Your task to perform on an android device: Go to Android settings Image 0: 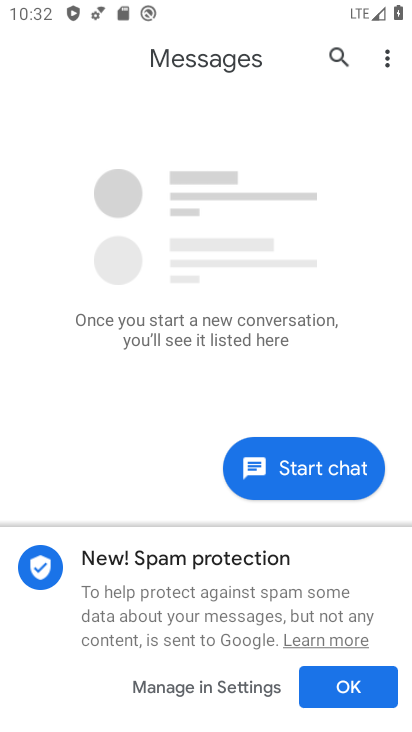
Step 0: press home button
Your task to perform on an android device: Go to Android settings Image 1: 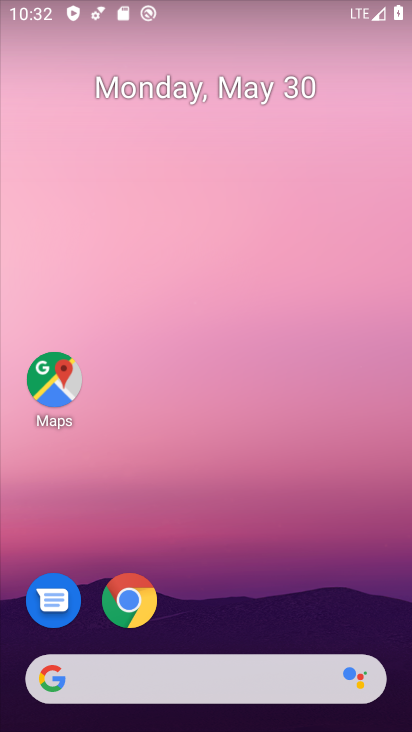
Step 1: drag from (250, 622) to (257, 132)
Your task to perform on an android device: Go to Android settings Image 2: 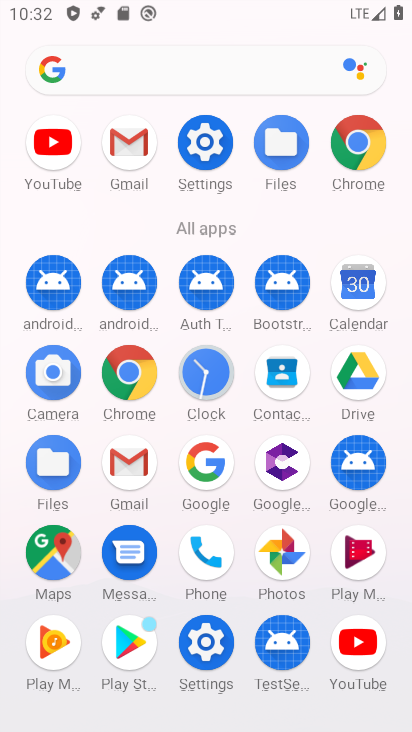
Step 2: click (202, 141)
Your task to perform on an android device: Go to Android settings Image 3: 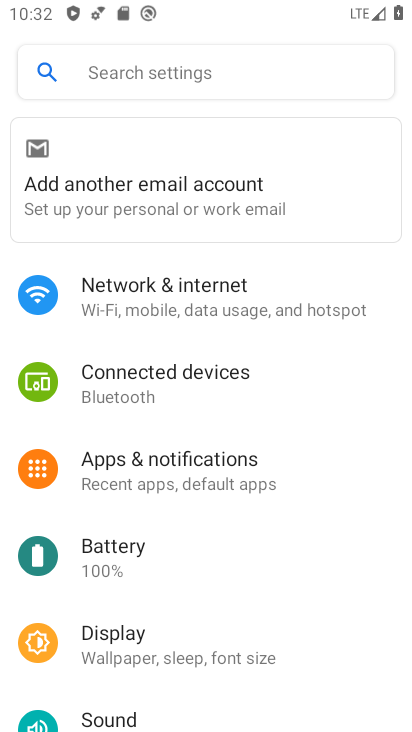
Step 3: drag from (198, 698) to (239, 125)
Your task to perform on an android device: Go to Android settings Image 4: 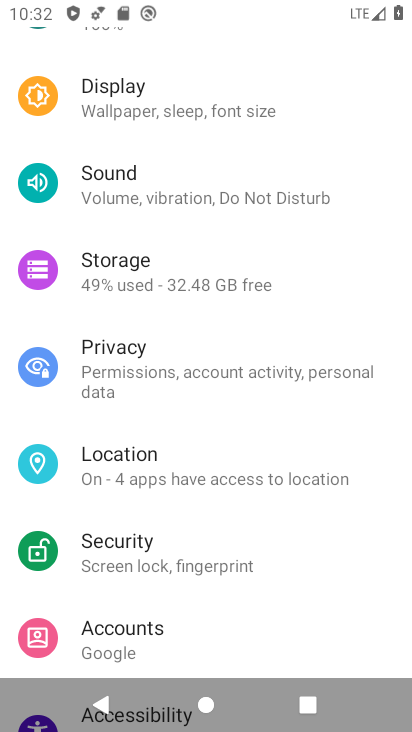
Step 4: drag from (243, 626) to (283, 116)
Your task to perform on an android device: Go to Android settings Image 5: 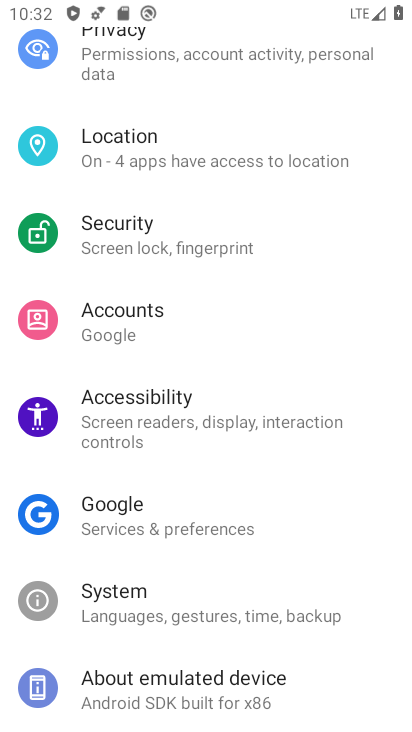
Step 5: click (162, 690)
Your task to perform on an android device: Go to Android settings Image 6: 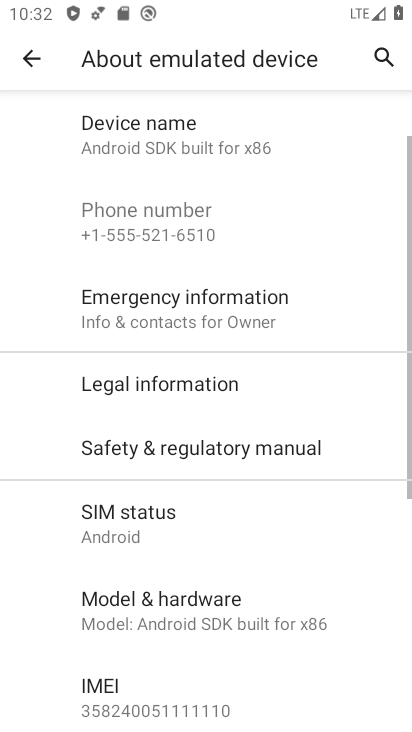
Step 6: drag from (276, 655) to (312, 208)
Your task to perform on an android device: Go to Android settings Image 7: 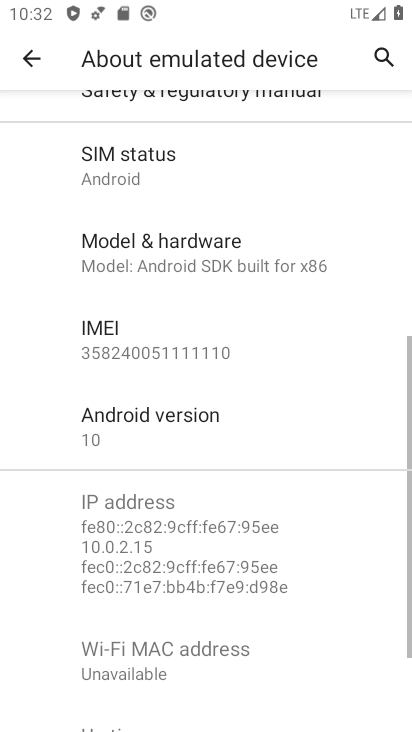
Step 7: click (153, 409)
Your task to perform on an android device: Go to Android settings Image 8: 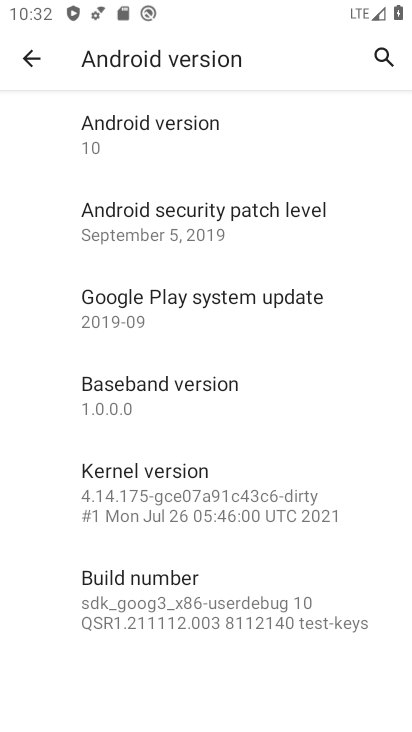
Step 8: task complete